Your task to perform on an android device: Go to Yahoo.com Image 0: 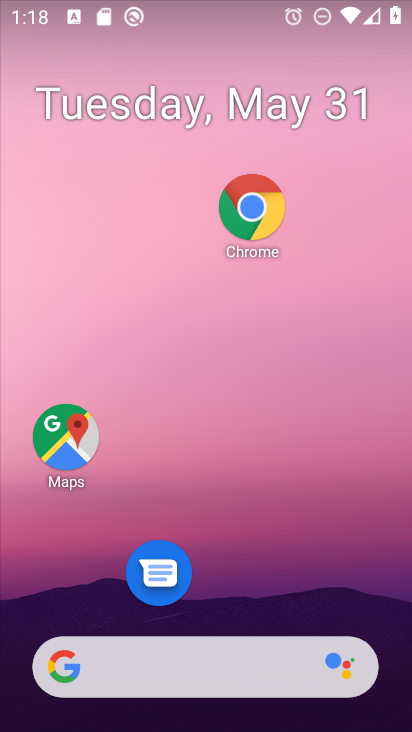
Step 0: drag from (217, 641) to (217, 155)
Your task to perform on an android device: Go to Yahoo.com Image 1: 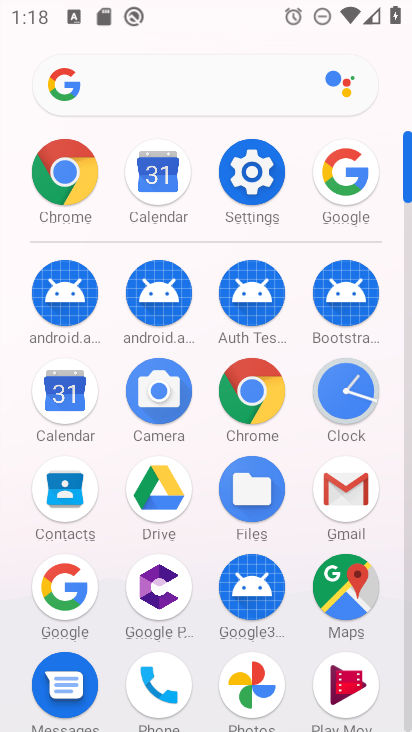
Step 1: click (264, 402)
Your task to perform on an android device: Go to Yahoo.com Image 2: 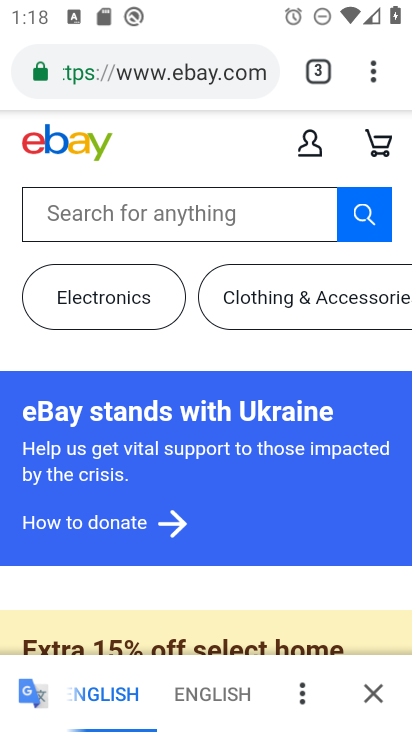
Step 2: click (234, 86)
Your task to perform on an android device: Go to Yahoo.com Image 3: 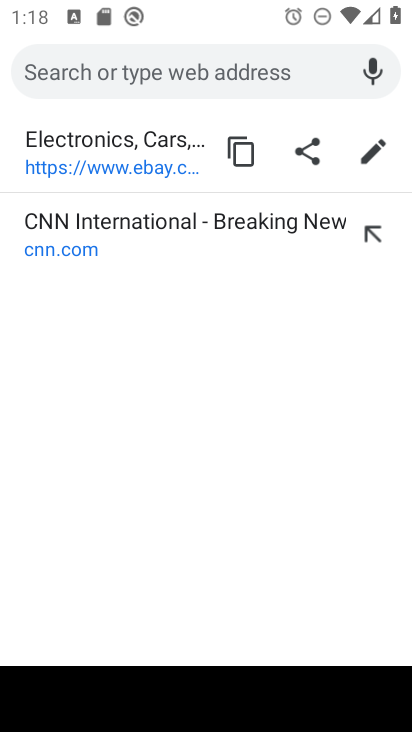
Step 3: type "yahoo"
Your task to perform on an android device: Go to Yahoo.com Image 4: 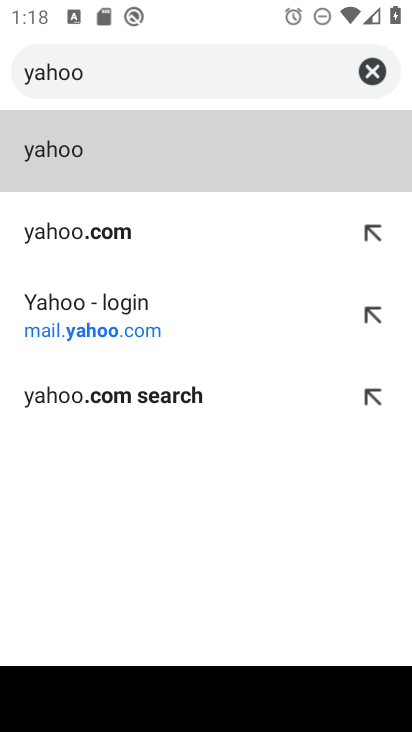
Step 4: click (125, 316)
Your task to perform on an android device: Go to Yahoo.com Image 5: 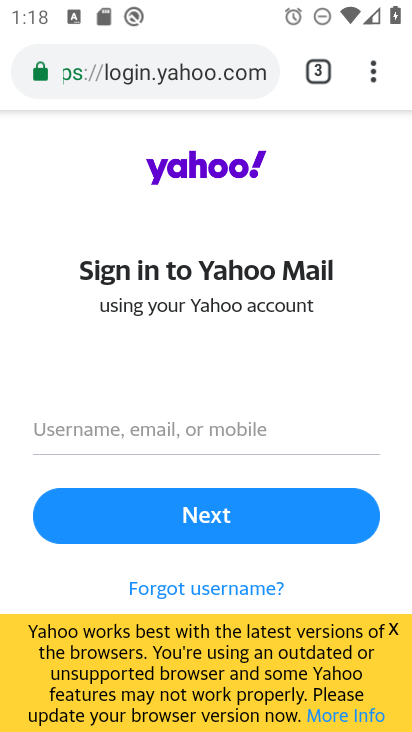
Step 5: task complete